Your task to perform on an android device: make emails show in primary in the gmail app Image 0: 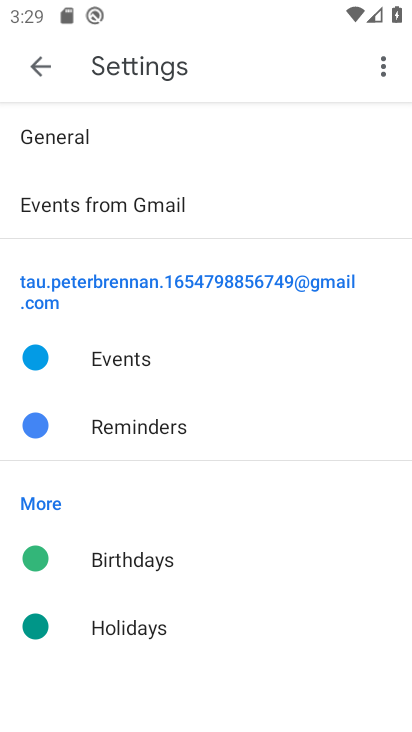
Step 0: press home button
Your task to perform on an android device: make emails show in primary in the gmail app Image 1: 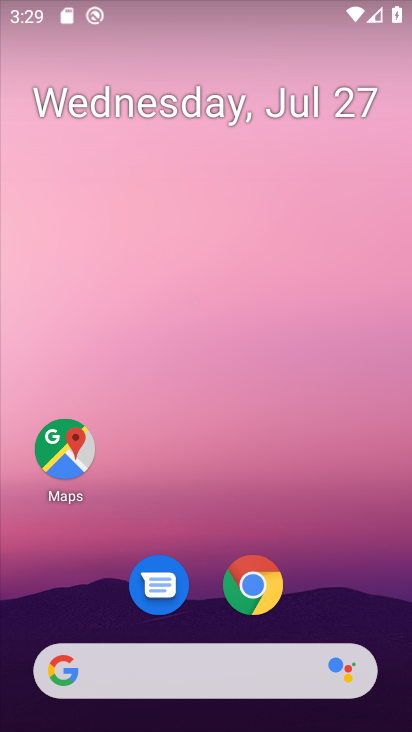
Step 1: drag from (317, 613) to (379, 63)
Your task to perform on an android device: make emails show in primary in the gmail app Image 2: 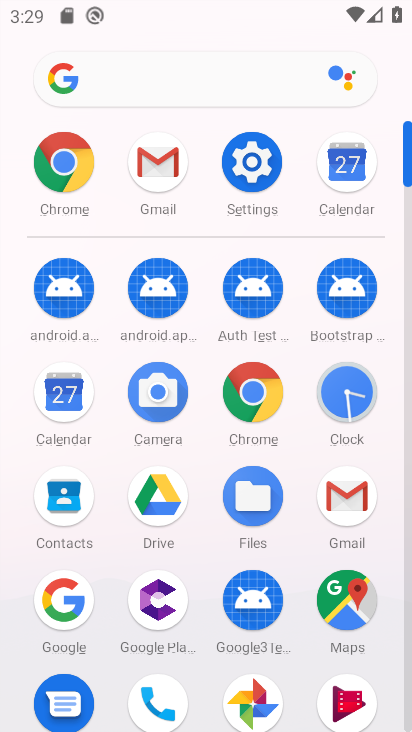
Step 2: click (171, 160)
Your task to perform on an android device: make emails show in primary in the gmail app Image 3: 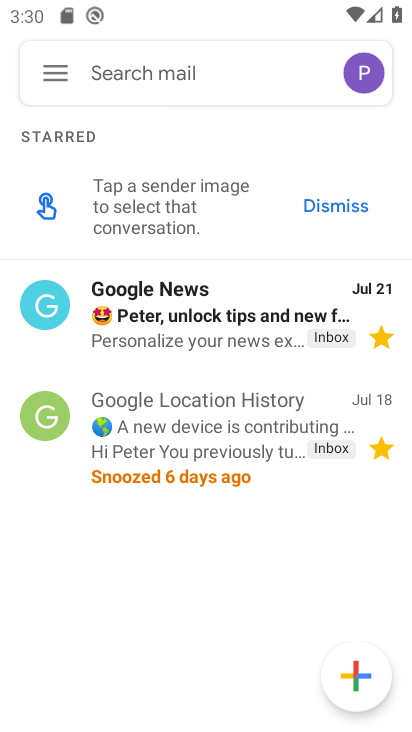
Step 3: click (55, 75)
Your task to perform on an android device: make emails show in primary in the gmail app Image 4: 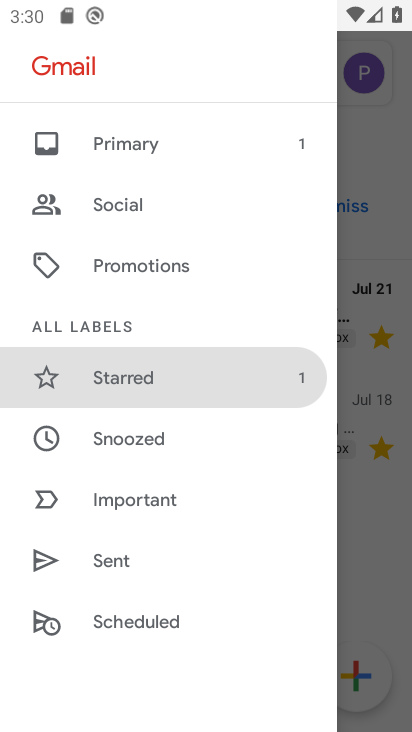
Step 4: drag from (163, 547) to (269, 94)
Your task to perform on an android device: make emails show in primary in the gmail app Image 5: 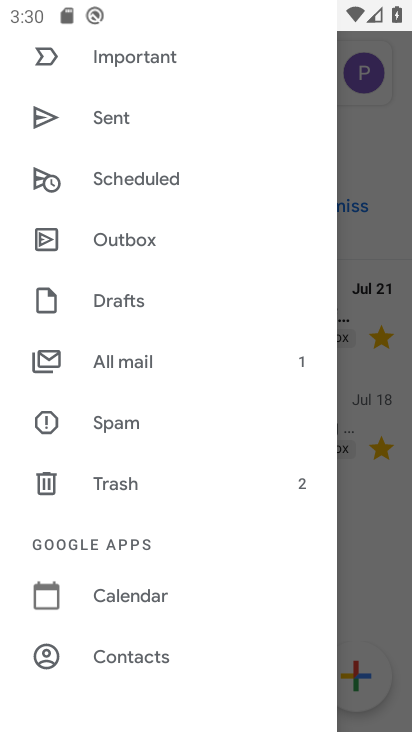
Step 5: drag from (227, 469) to (242, 212)
Your task to perform on an android device: make emails show in primary in the gmail app Image 6: 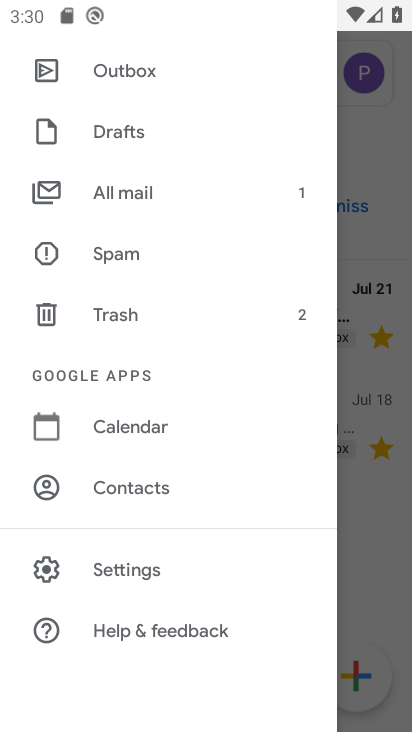
Step 6: click (134, 561)
Your task to perform on an android device: make emails show in primary in the gmail app Image 7: 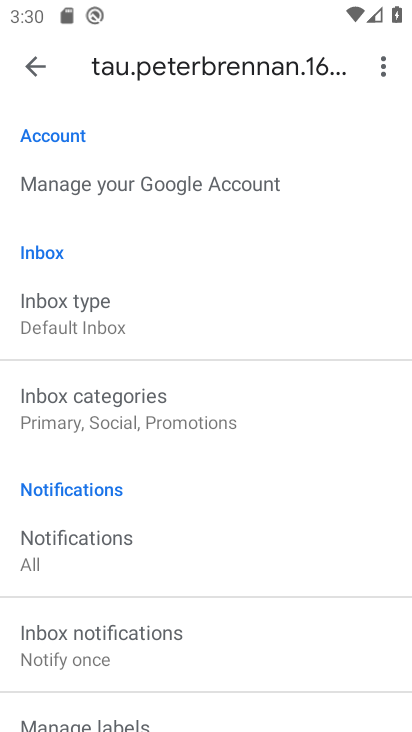
Step 7: click (101, 415)
Your task to perform on an android device: make emails show in primary in the gmail app Image 8: 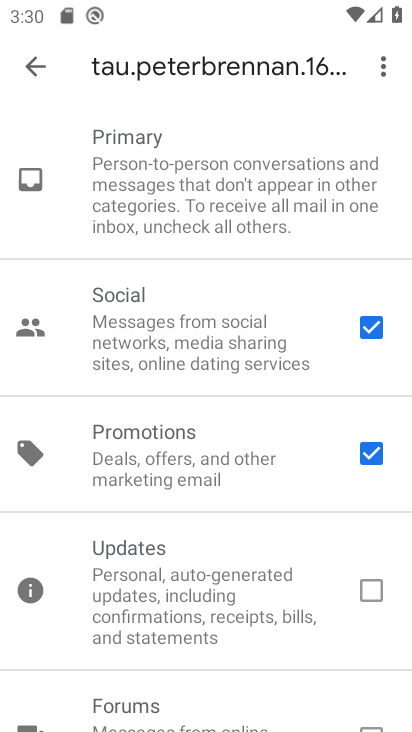
Step 8: click (364, 325)
Your task to perform on an android device: make emails show in primary in the gmail app Image 9: 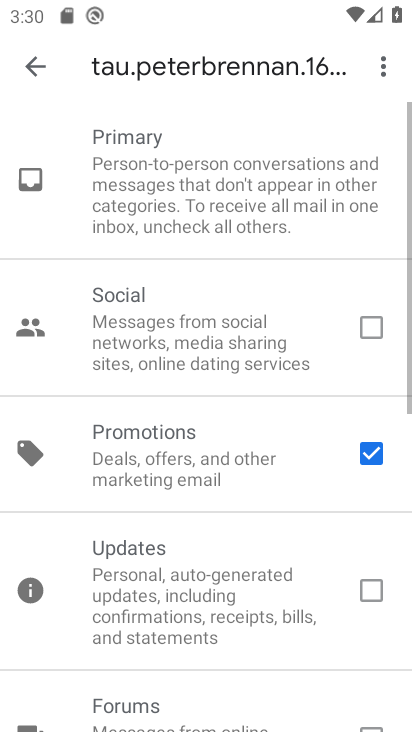
Step 9: click (372, 447)
Your task to perform on an android device: make emails show in primary in the gmail app Image 10: 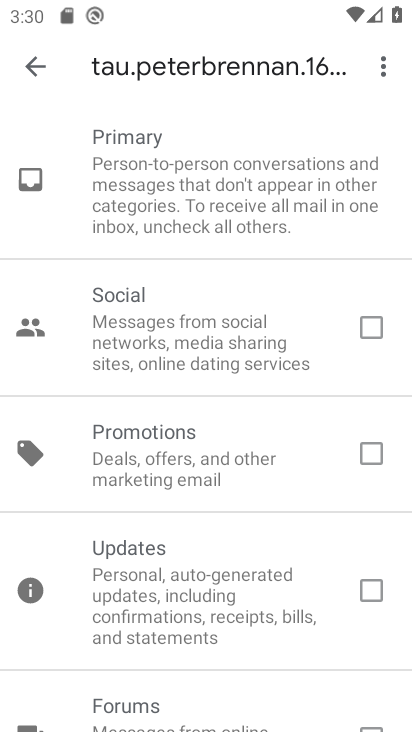
Step 10: task complete